Your task to perform on an android device: turn on the 12-hour format for clock Image 0: 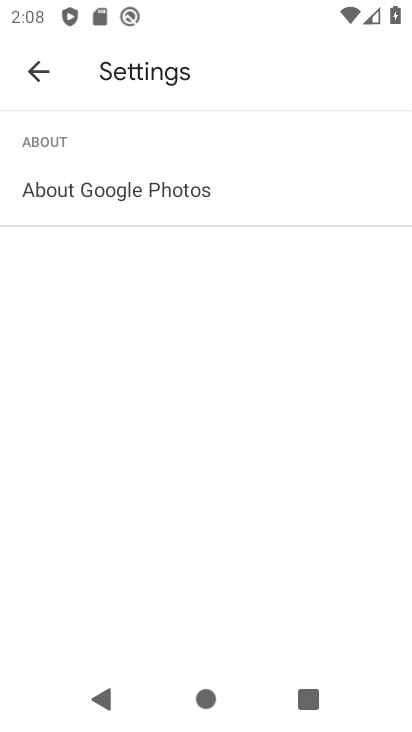
Step 0: press home button
Your task to perform on an android device: turn on the 12-hour format for clock Image 1: 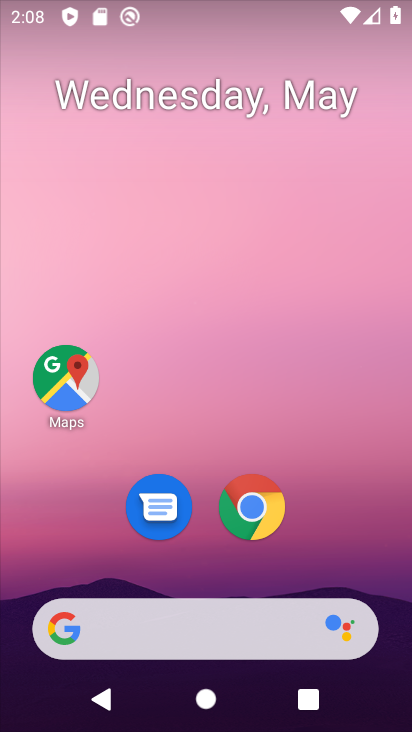
Step 1: drag from (326, 409) to (318, 184)
Your task to perform on an android device: turn on the 12-hour format for clock Image 2: 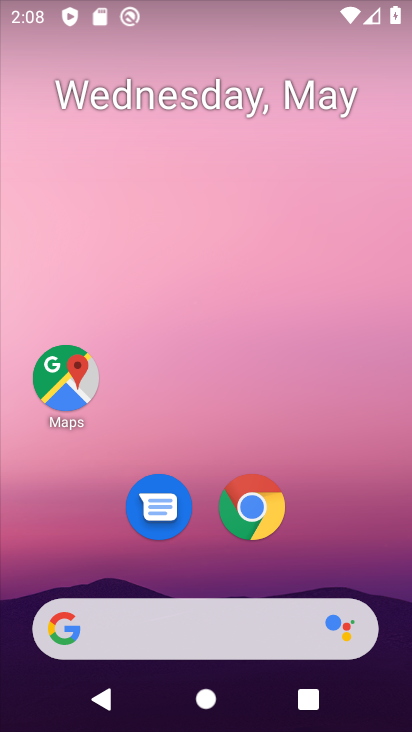
Step 2: drag from (384, 582) to (355, 176)
Your task to perform on an android device: turn on the 12-hour format for clock Image 3: 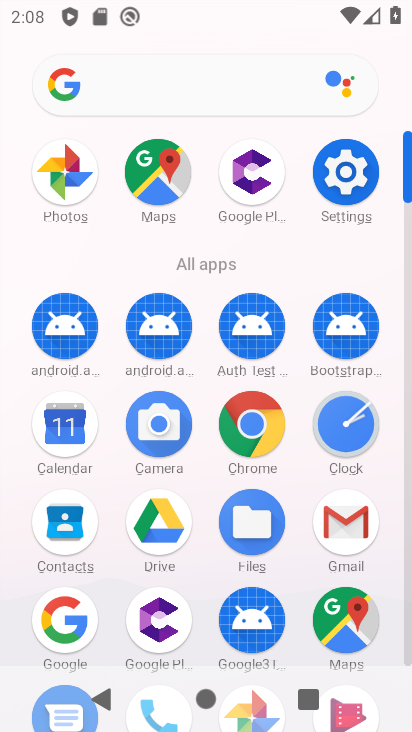
Step 3: click (345, 437)
Your task to perform on an android device: turn on the 12-hour format for clock Image 4: 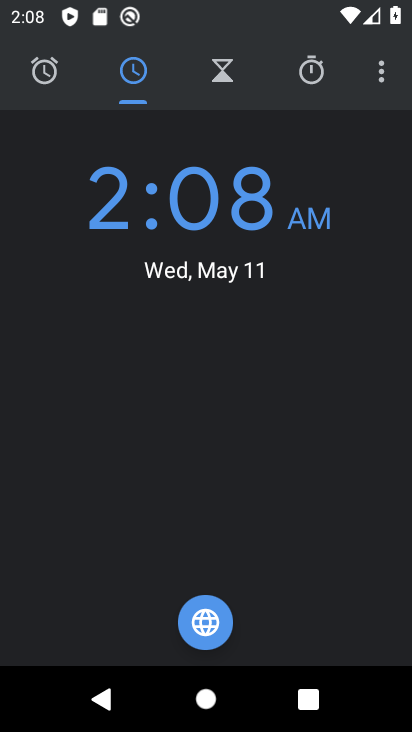
Step 4: click (390, 78)
Your task to perform on an android device: turn on the 12-hour format for clock Image 5: 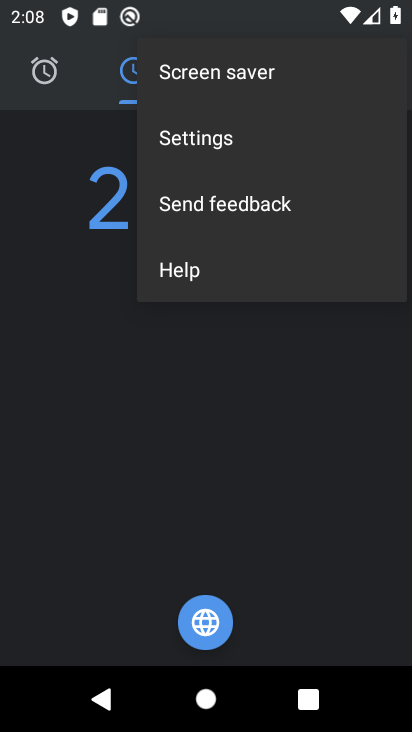
Step 5: click (233, 136)
Your task to perform on an android device: turn on the 12-hour format for clock Image 6: 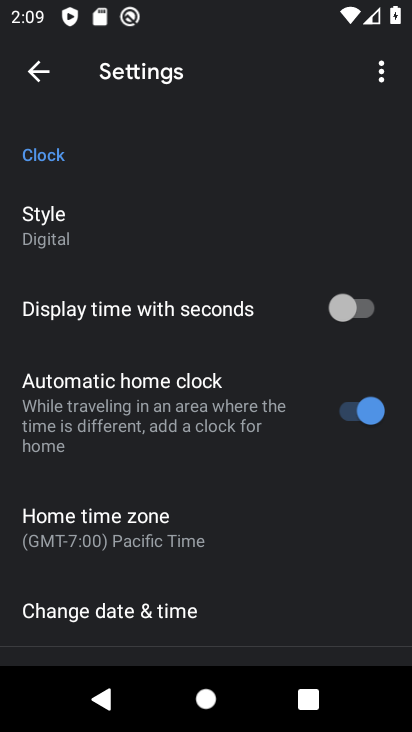
Step 6: click (212, 608)
Your task to perform on an android device: turn on the 12-hour format for clock Image 7: 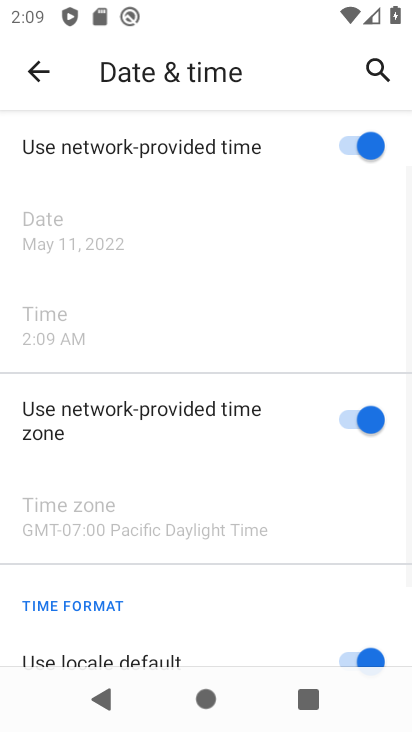
Step 7: task complete